Your task to perform on an android device: Go to Google Image 0: 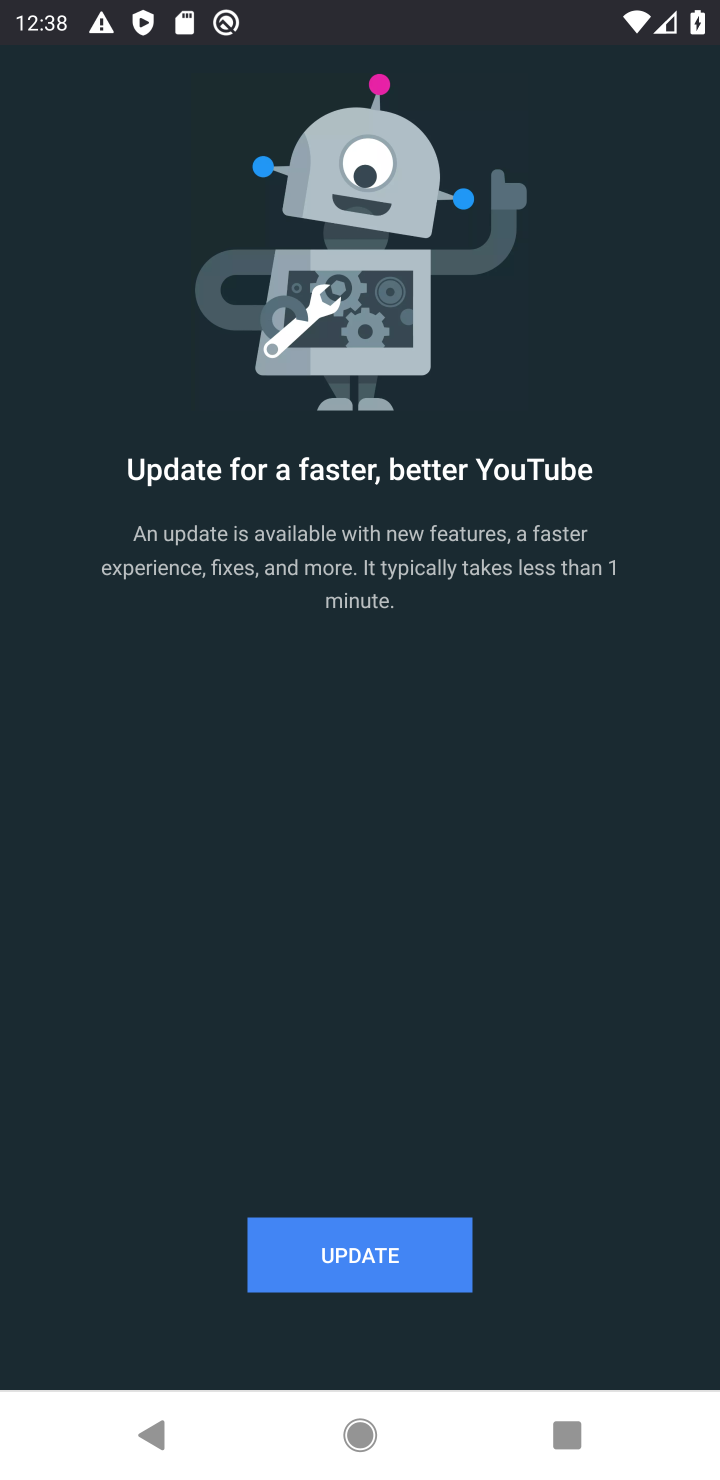
Step 0: press home button
Your task to perform on an android device: Go to Google Image 1: 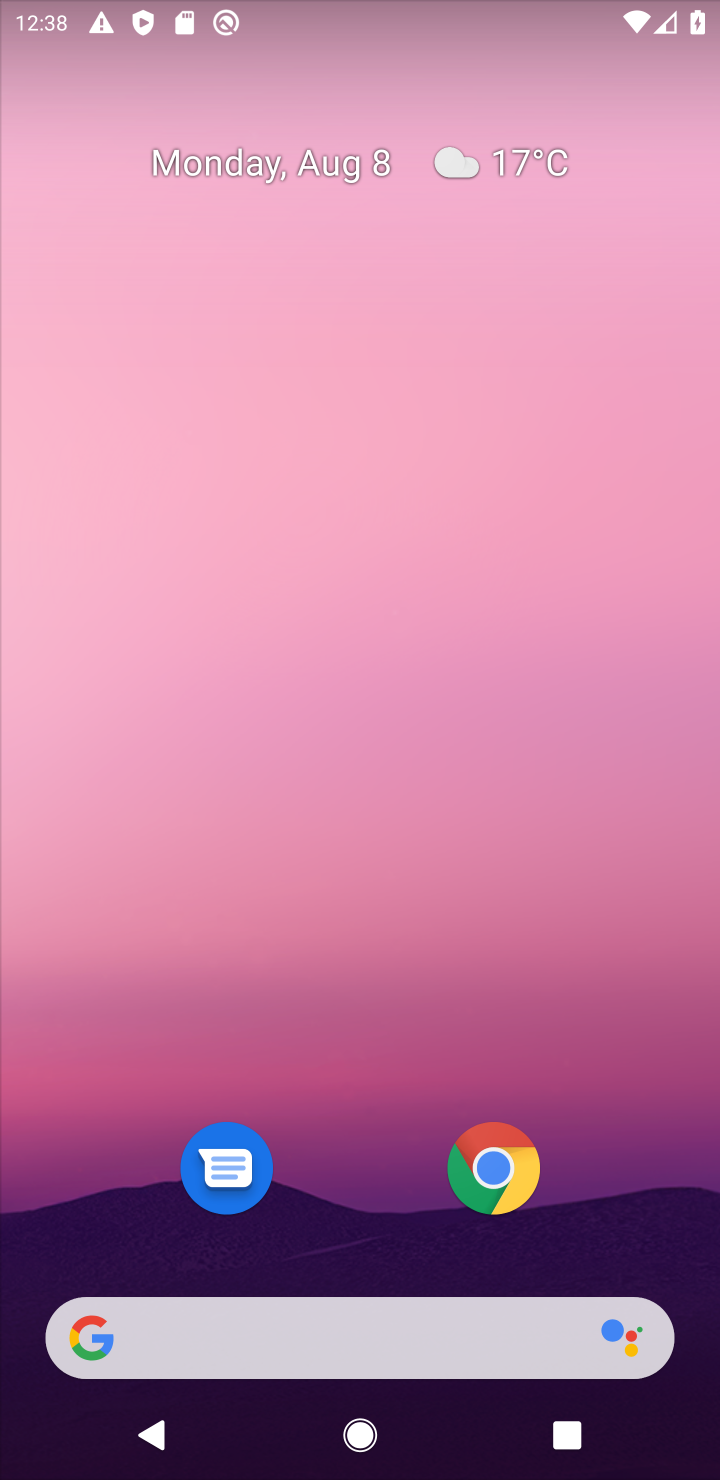
Step 1: click (286, 1314)
Your task to perform on an android device: Go to Google Image 2: 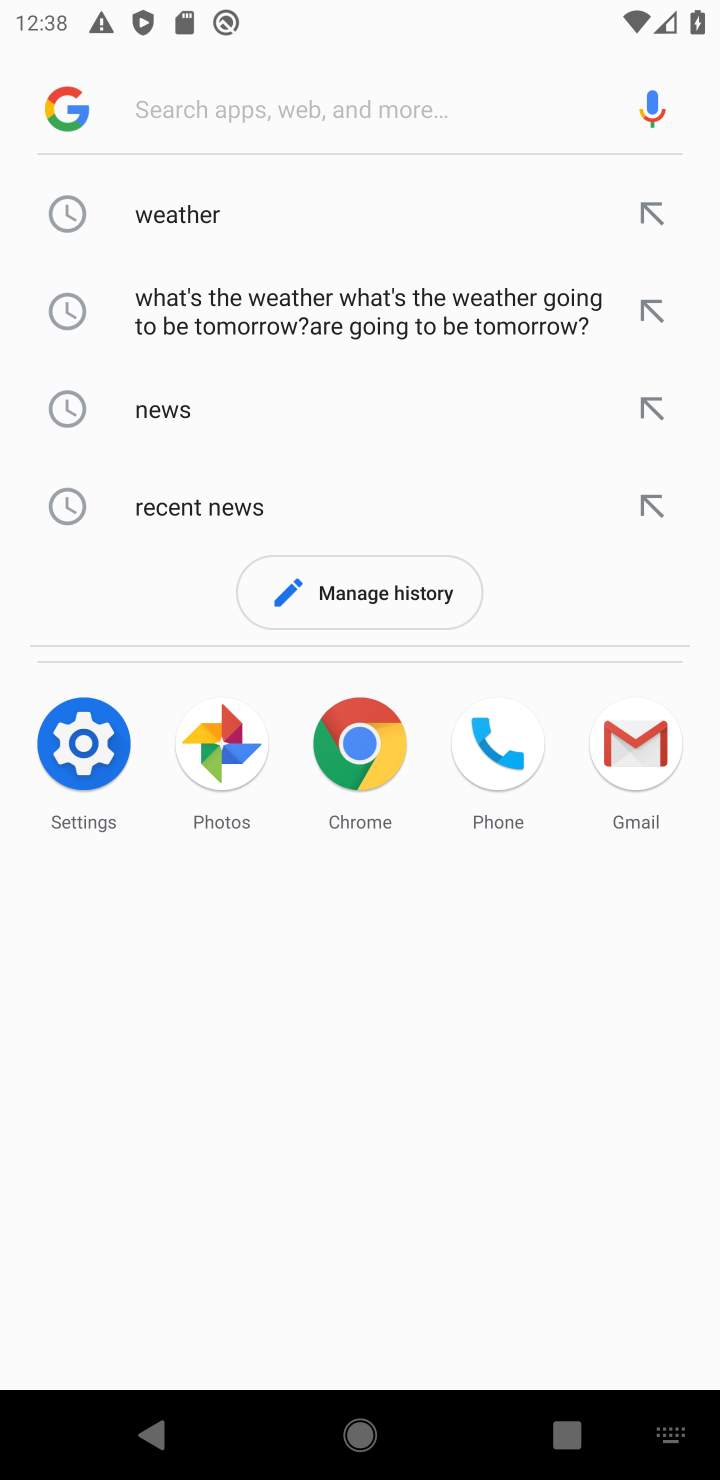
Step 2: task complete